Your task to perform on an android device: change notifications settings Image 0: 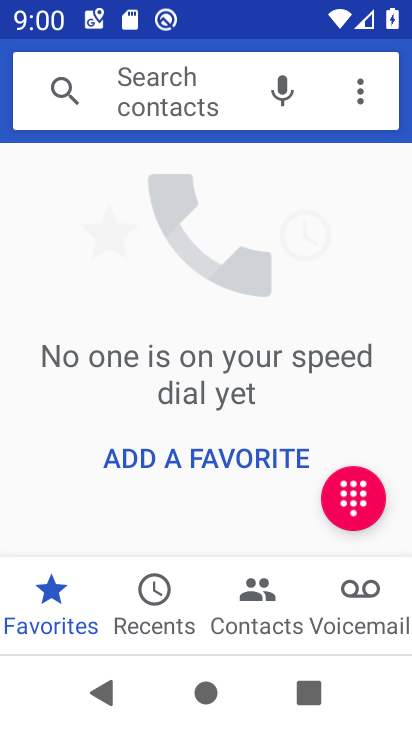
Step 0: press home button
Your task to perform on an android device: change notifications settings Image 1: 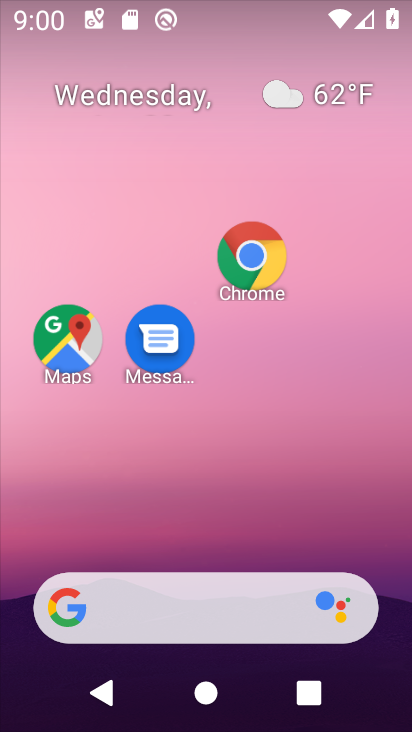
Step 1: drag from (203, 432) to (149, 68)
Your task to perform on an android device: change notifications settings Image 2: 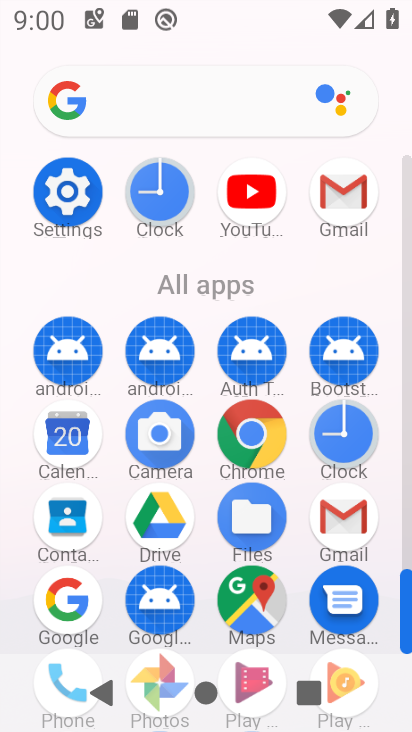
Step 2: click (69, 189)
Your task to perform on an android device: change notifications settings Image 3: 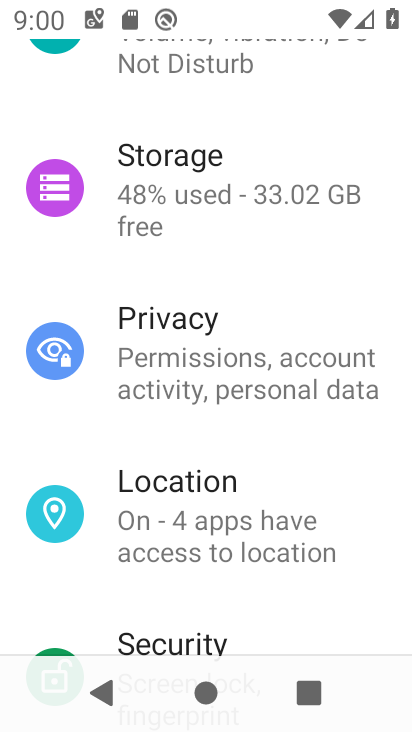
Step 3: drag from (216, 121) to (215, 546)
Your task to perform on an android device: change notifications settings Image 4: 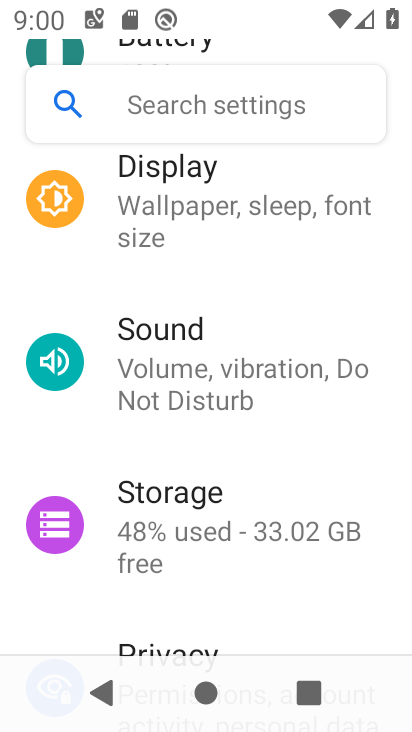
Step 4: drag from (214, 224) to (206, 580)
Your task to perform on an android device: change notifications settings Image 5: 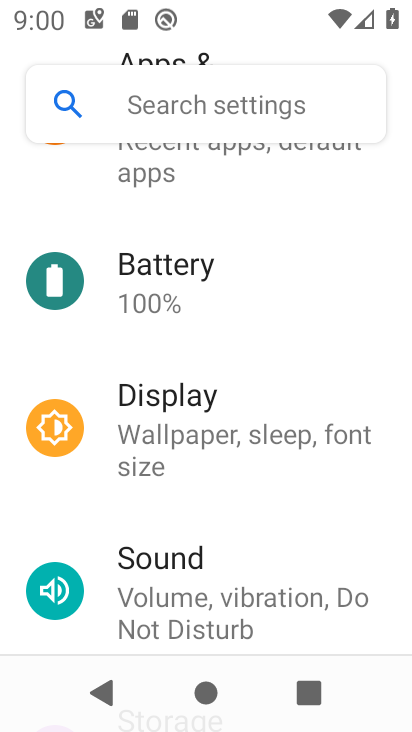
Step 5: drag from (172, 218) to (202, 506)
Your task to perform on an android device: change notifications settings Image 6: 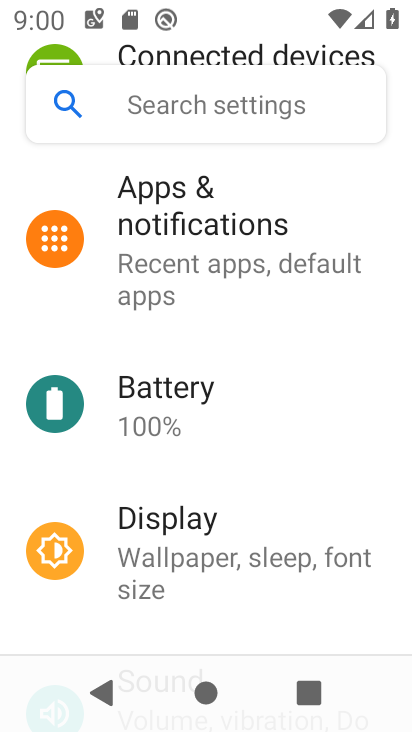
Step 6: click (197, 226)
Your task to perform on an android device: change notifications settings Image 7: 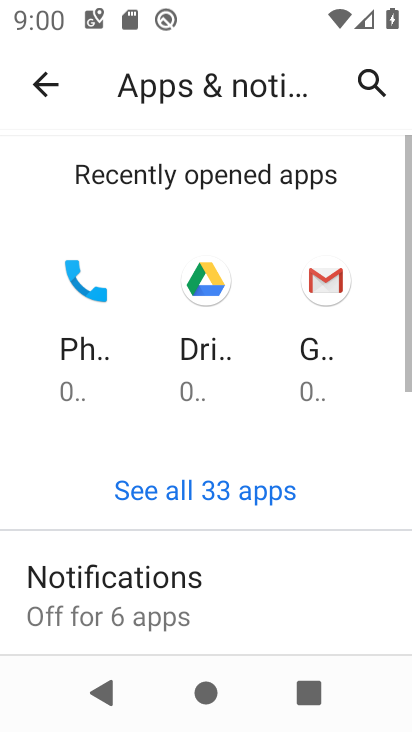
Step 7: click (161, 579)
Your task to perform on an android device: change notifications settings Image 8: 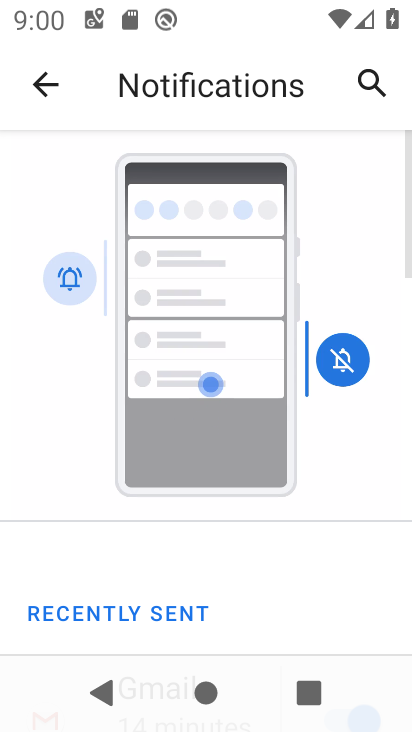
Step 8: drag from (223, 534) to (245, 28)
Your task to perform on an android device: change notifications settings Image 9: 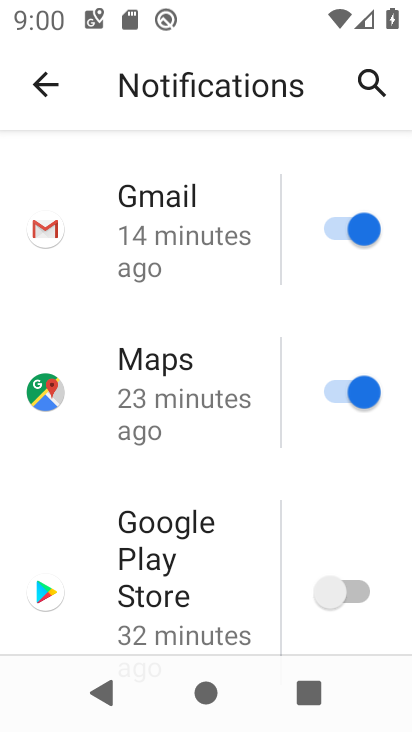
Step 9: drag from (195, 519) to (180, 10)
Your task to perform on an android device: change notifications settings Image 10: 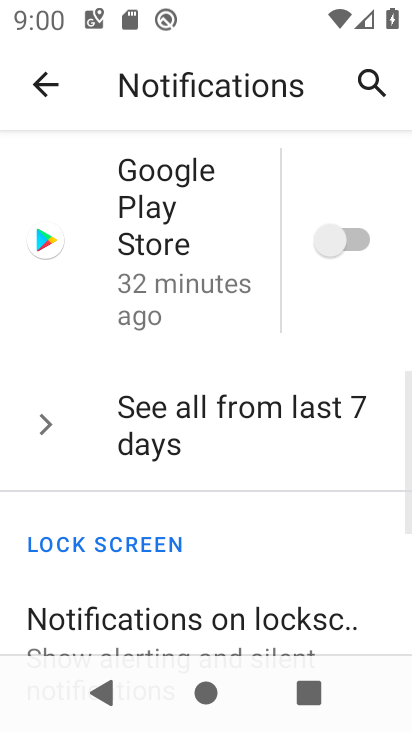
Step 10: drag from (205, 573) to (237, 541)
Your task to perform on an android device: change notifications settings Image 11: 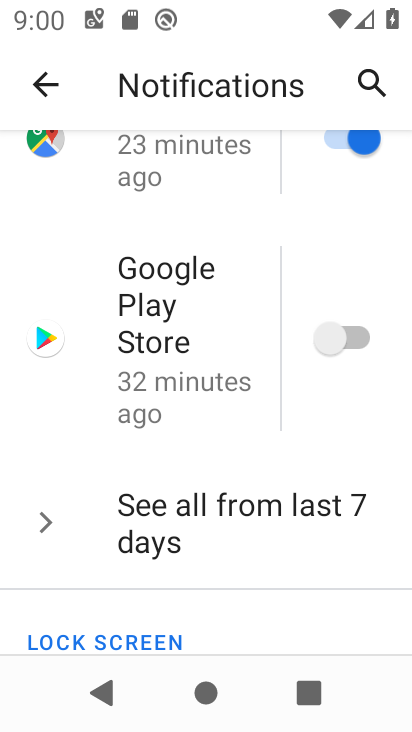
Step 11: drag from (249, 583) to (226, 116)
Your task to perform on an android device: change notifications settings Image 12: 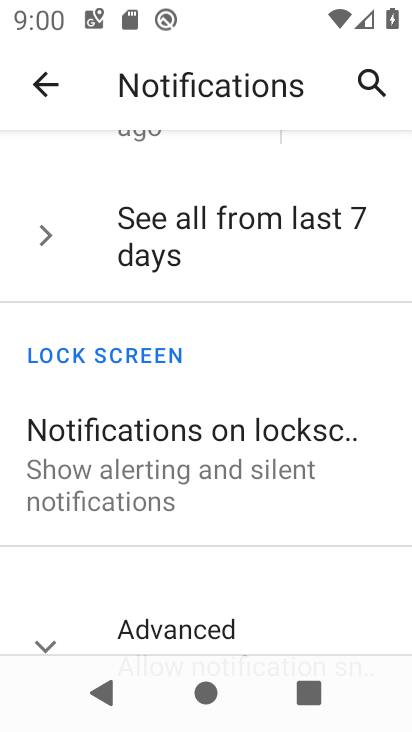
Step 12: click (158, 637)
Your task to perform on an android device: change notifications settings Image 13: 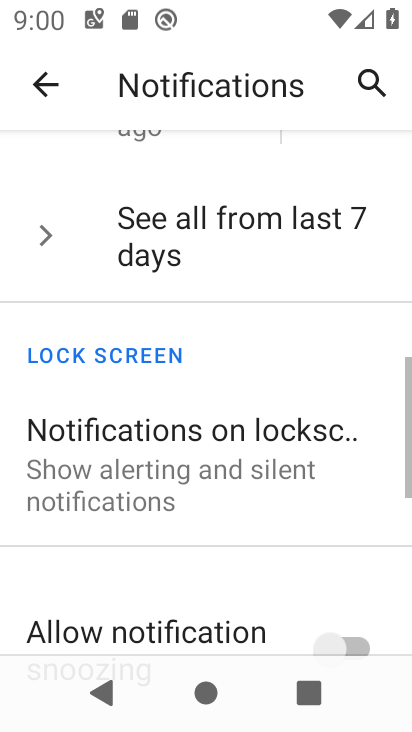
Step 13: drag from (198, 551) to (254, 228)
Your task to perform on an android device: change notifications settings Image 14: 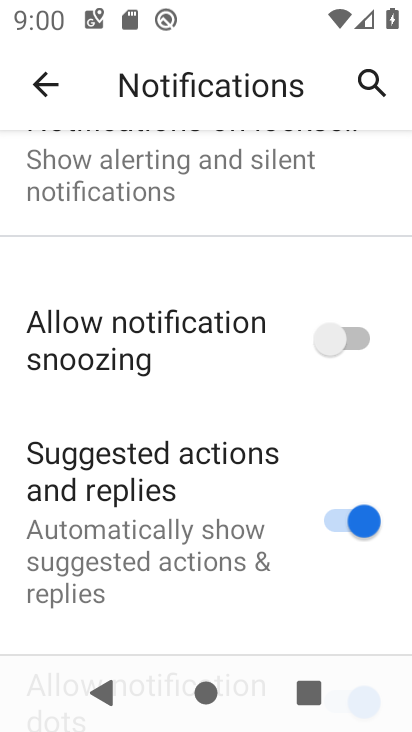
Step 14: click (349, 336)
Your task to perform on an android device: change notifications settings Image 15: 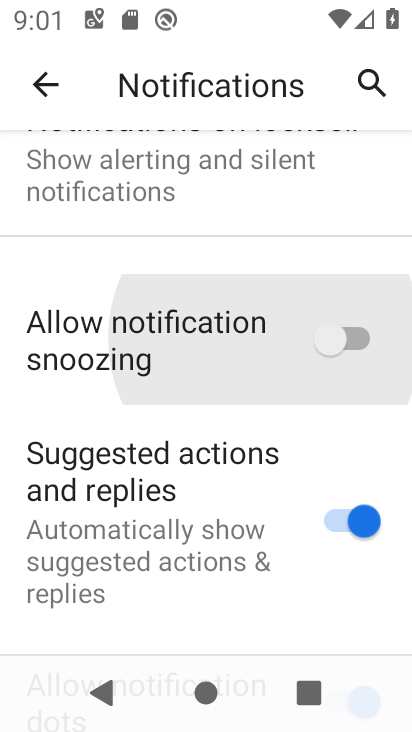
Step 15: click (347, 528)
Your task to perform on an android device: change notifications settings Image 16: 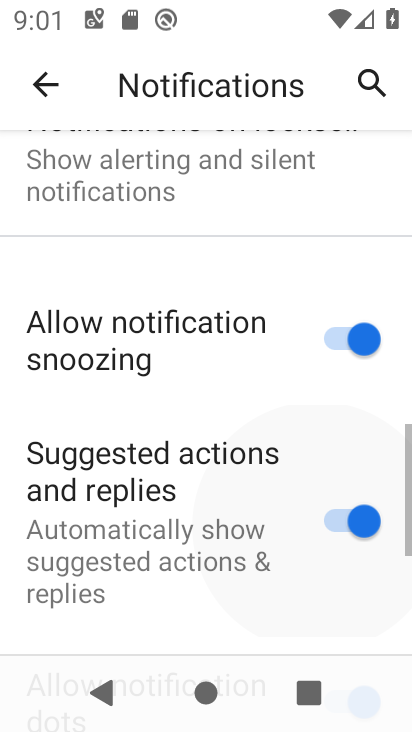
Step 16: drag from (205, 451) to (174, 194)
Your task to perform on an android device: change notifications settings Image 17: 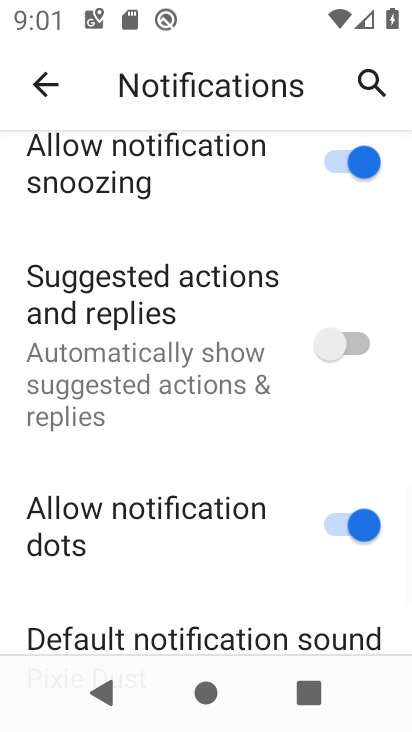
Step 17: click (354, 530)
Your task to perform on an android device: change notifications settings Image 18: 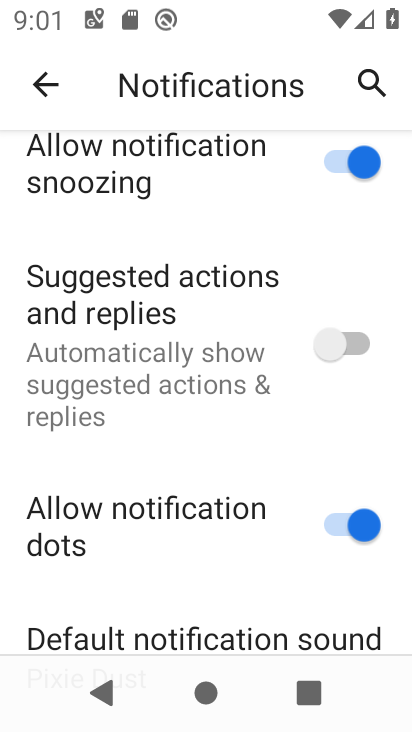
Step 18: drag from (172, 499) to (216, 211)
Your task to perform on an android device: change notifications settings Image 19: 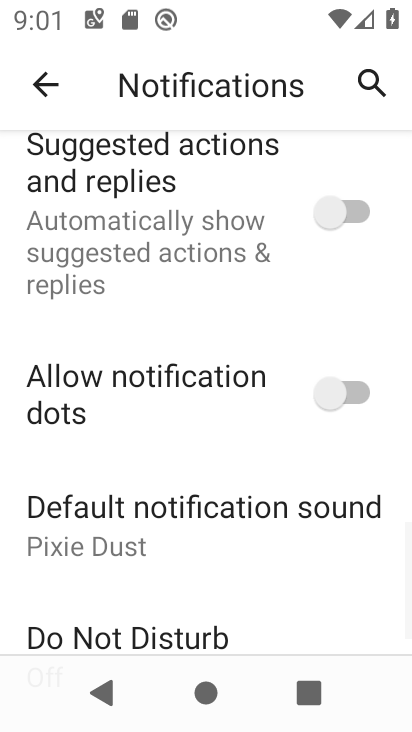
Step 19: drag from (192, 582) to (166, 406)
Your task to perform on an android device: change notifications settings Image 20: 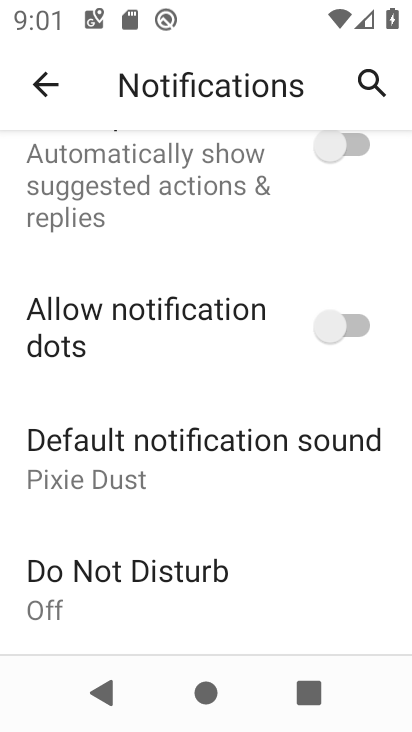
Step 20: click (172, 479)
Your task to perform on an android device: change notifications settings Image 21: 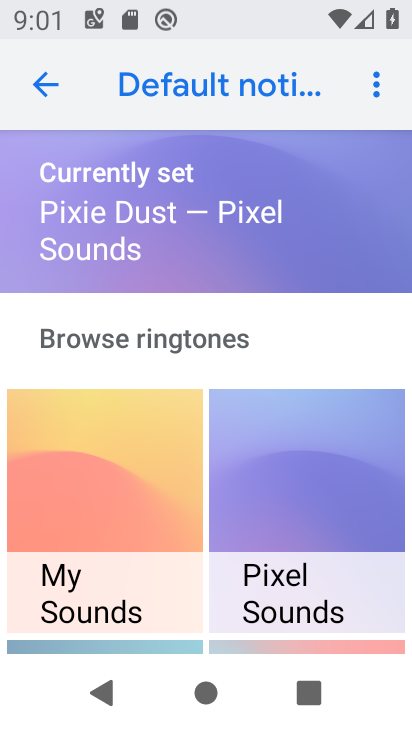
Step 21: click (99, 482)
Your task to perform on an android device: change notifications settings Image 22: 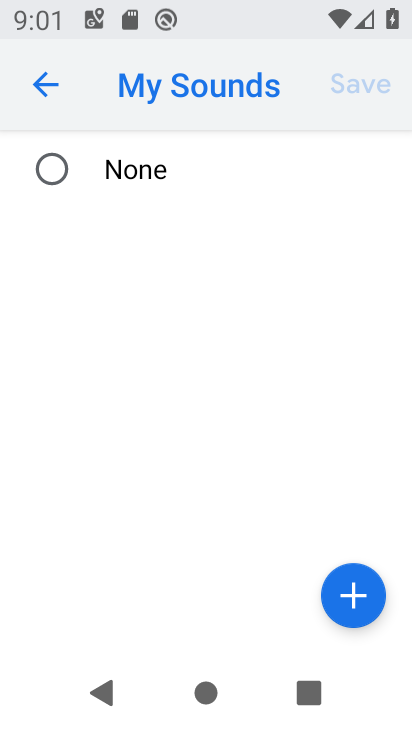
Step 22: click (23, 175)
Your task to perform on an android device: change notifications settings Image 23: 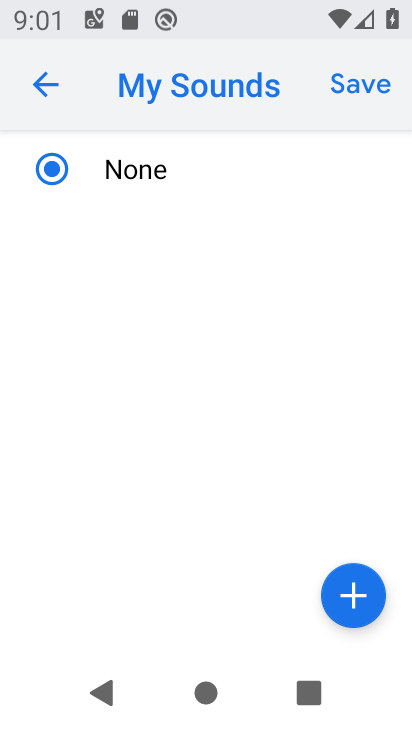
Step 23: click (349, 83)
Your task to perform on an android device: change notifications settings Image 24: 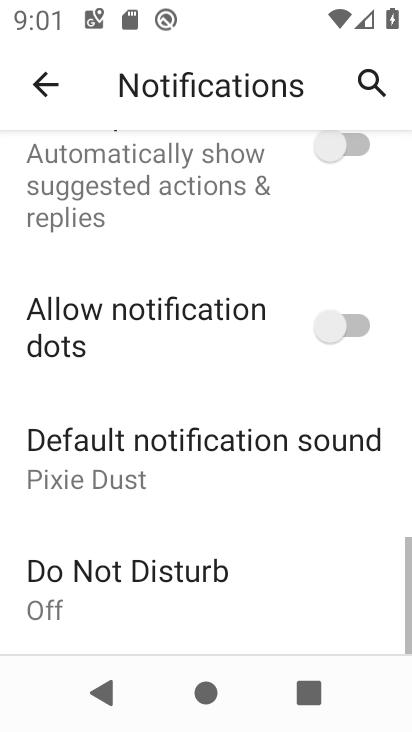
Step 24: drag from (252, 540) to (255, 257)
Your task to perform on an android device: change notifications settings Image 25: 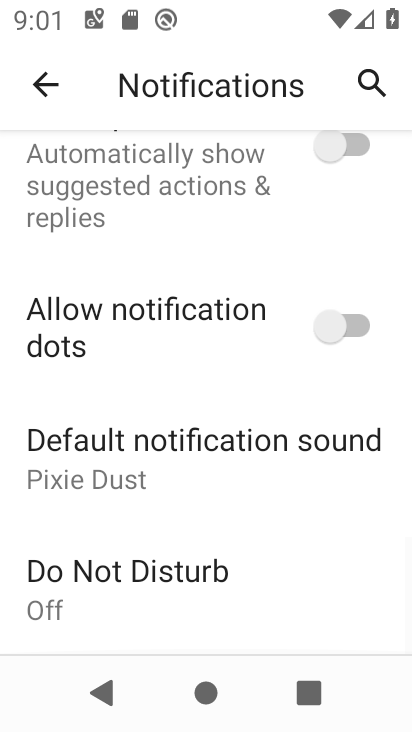
Step 25: click (198, 603)
Your task to perform on an android device: change notifications settings Image 26: 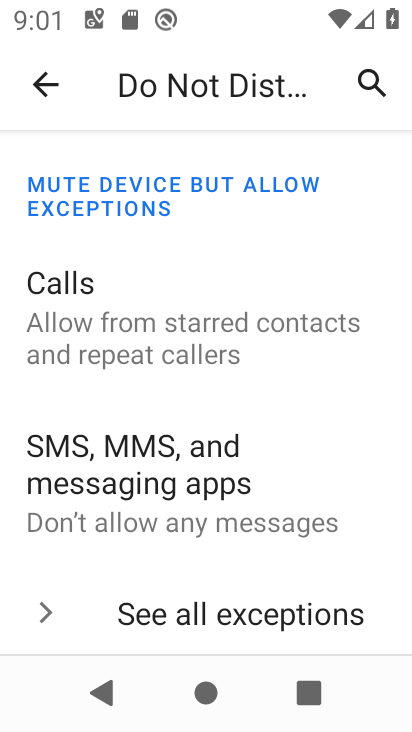
Step 26: drag from (286, 544) to (297, 0)
Your task to perform on an android device: change notifications settings Image 27: 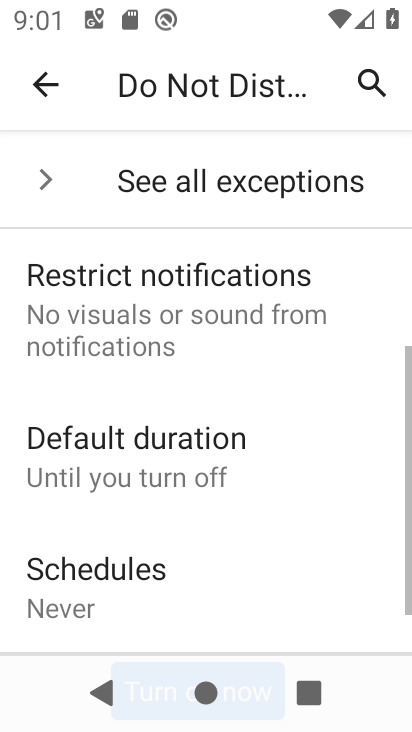
Step 27: drag from (208, 558) to (190, 183)
Your task to perform on an android device: change notifications settings Image 28: 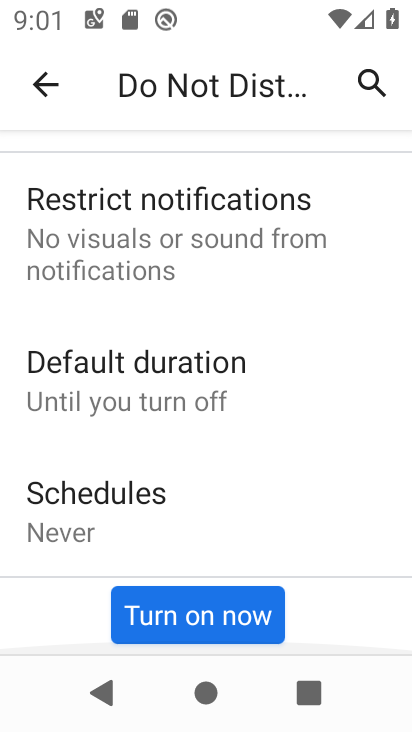
Step 28: click (194, 609)
Your task to perform on an android device: change notifications settings Image 29: 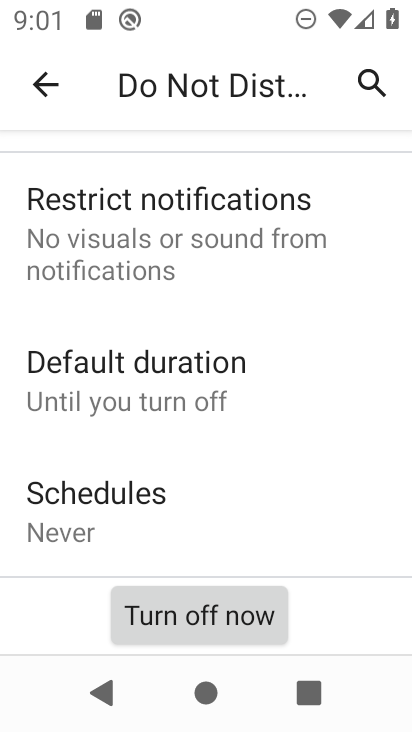
Step 29: task complete